Your task to perform on an android device: Open the stopwatch Image 0: 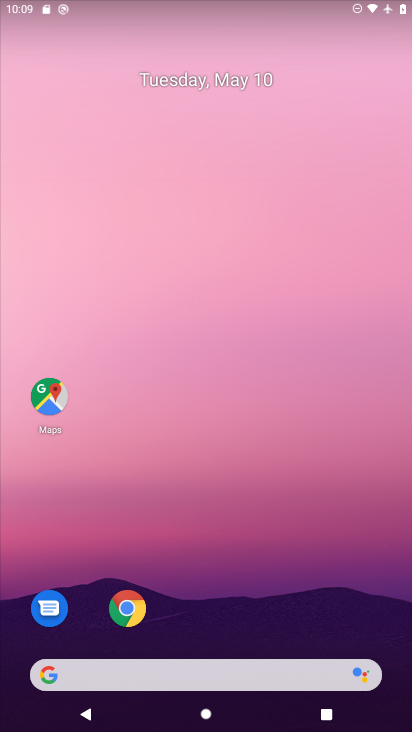
Step 0: drag from (257, 617) to (257, 304)
Your task to perform on an android device: Open the stopwatch Image 1: 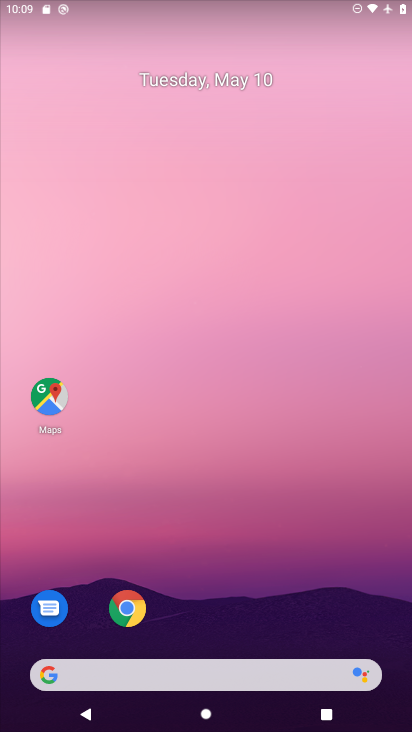
Step 1: drag from (229, 608) to (281, 262)
Your task to perform on an android device: Open the stopwatch Image 2: 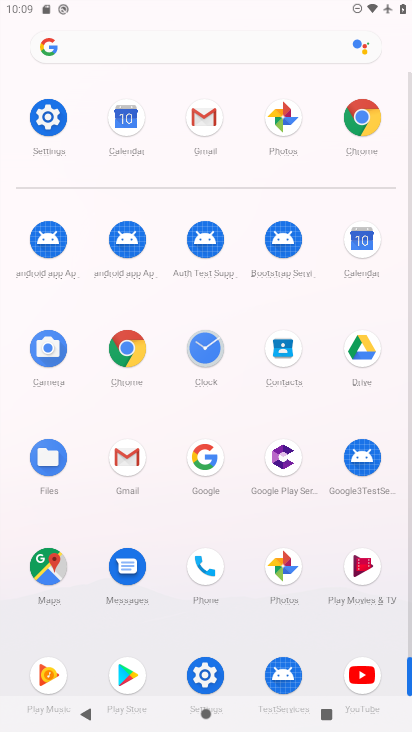
Step 2: click (201, 343)
Your task to perform on an android device: Open the stopwatch Image 3: 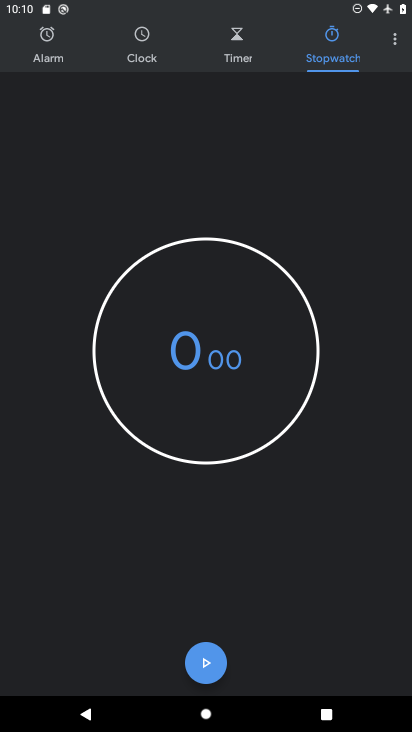
Step 3: task complete